Your task to perform on an android device: Open display settings Image 0: 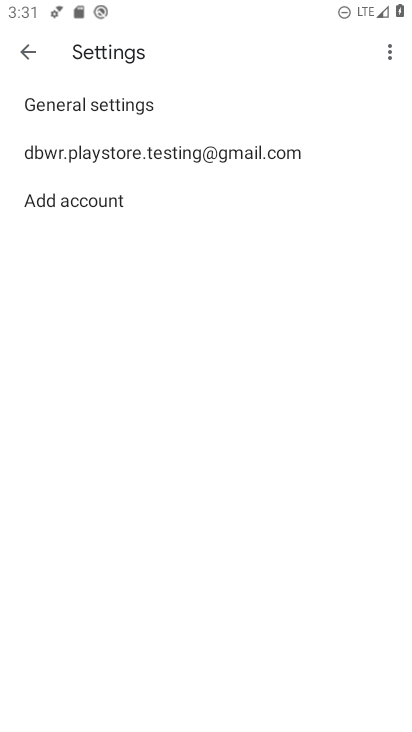
Step 0: press home button
Your task to perform on an android device: Open display settings Image 1: 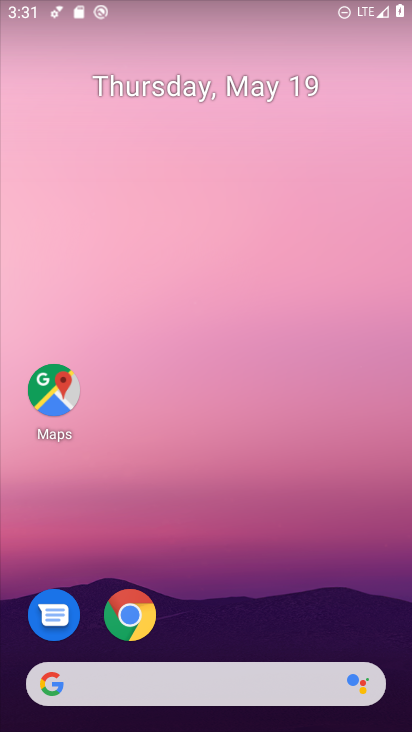
Step 1: drag from (348, 628) to (241, 74)
Your task to perform on an android device: Open display settings Image 2: 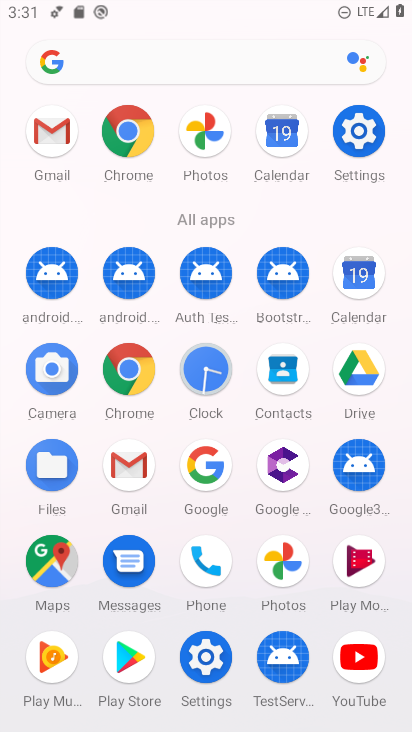
Step 2: click (344, 145)
Your task to perform on an android device: Open display settings Image 3: 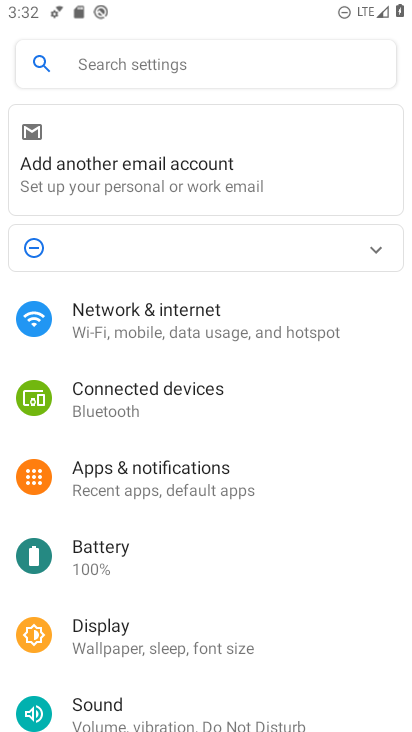
Step 3: click (268, 634)
Your task to perform on an android device: Open display settings Image 4: 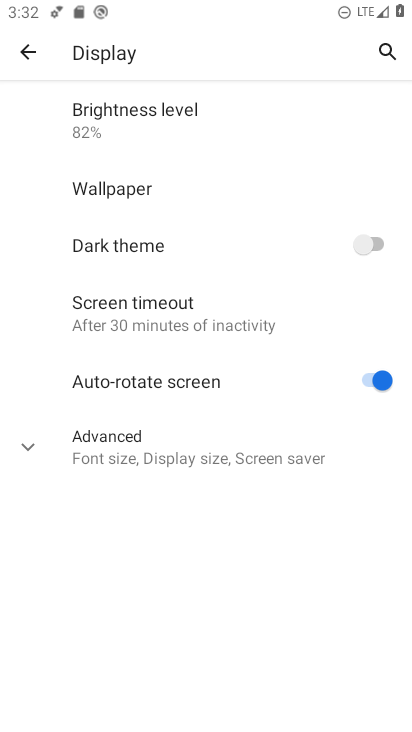
Step 4: task complete